Your task to perform on an android device: star an email in the gmail app Image 0: 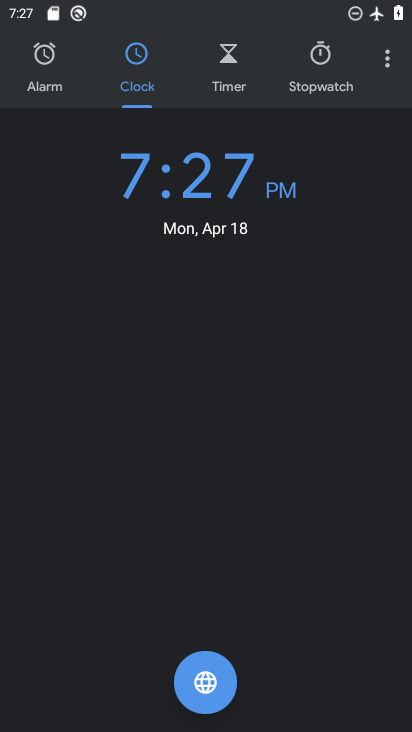
Step 0: press home button
Your task to perform on an android device: star an email in the gmail app Image 1: 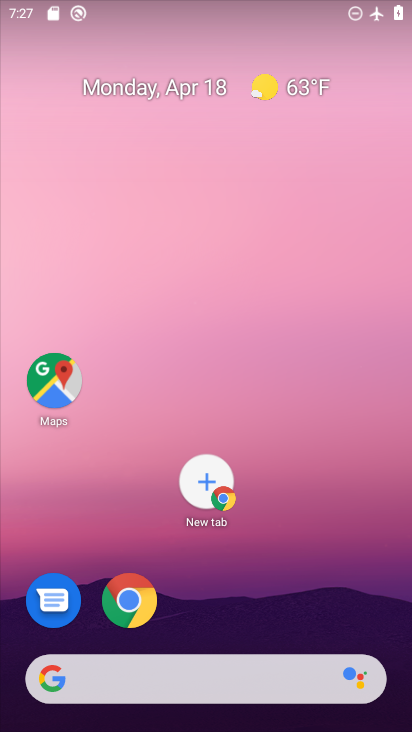
Step 1: drag from (275, 615) to (288, 3)
Your task to perform on an android device: star an email in the gmail app Image 2: 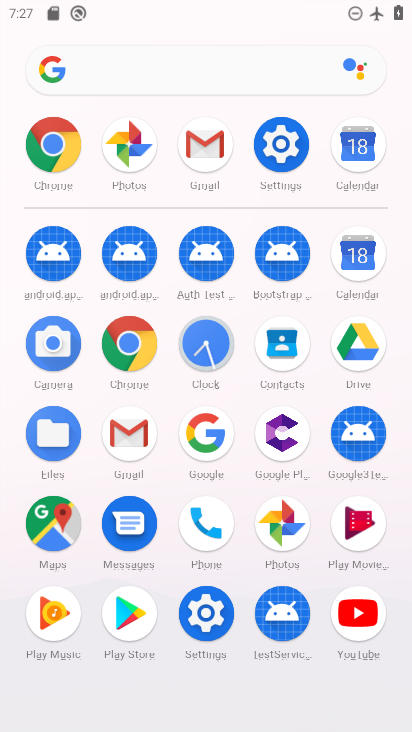
Step 2: click (201, 156)
Your task to perform on an android device: star an email in the gmail app Image 3: 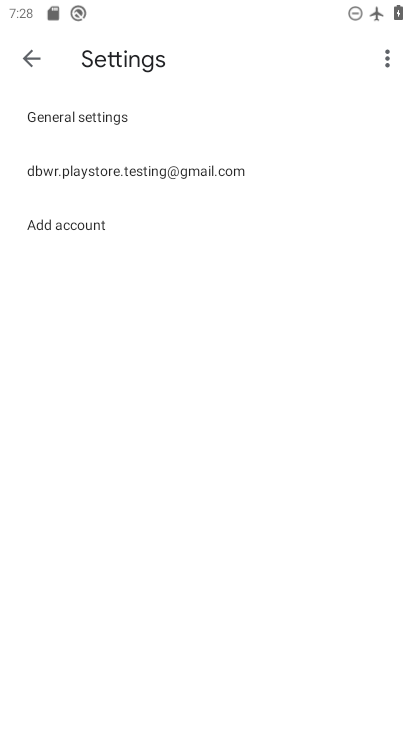
Step 3: click (26, 57)
Your task to perform on an android device: star an email in the gmail app Image 4: 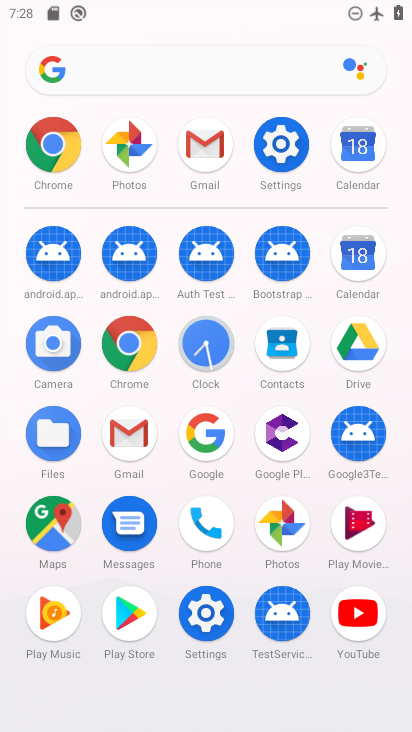
Step 4: click (196, 147)
Your task to perform on an android device: star an email in the gmail app Image 5: 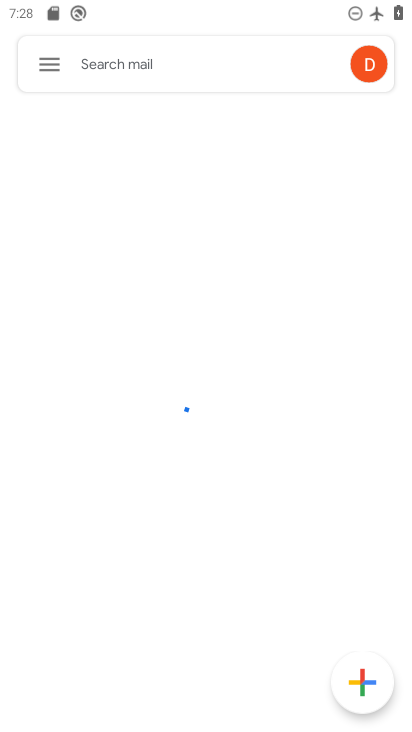
Step 5: click (44, 68)
Your task to perform on an android device: star an email in the gmail app Image 6: 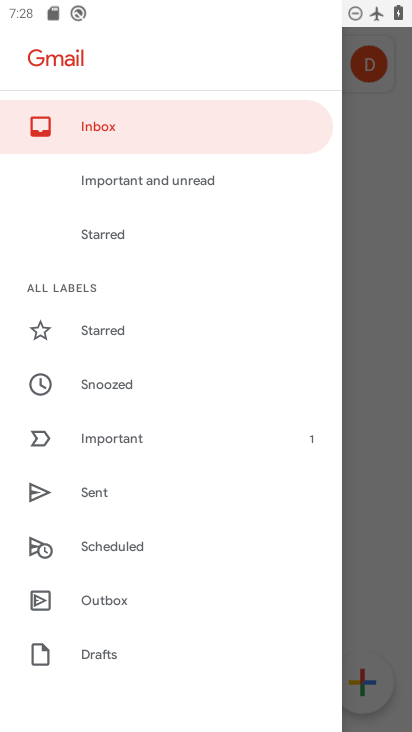
Step 6: drag from (193, 629) to (155, 172)
Your task to perform on an android device: star an email in the gmail app Image 7: 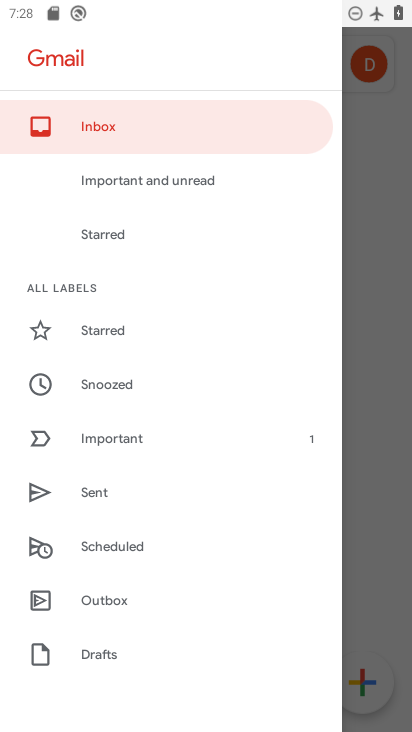
Step 7: drag from (207, 492) to (203, 136)
Your task to perform on an android device: star an email in the gmail app Image 8: 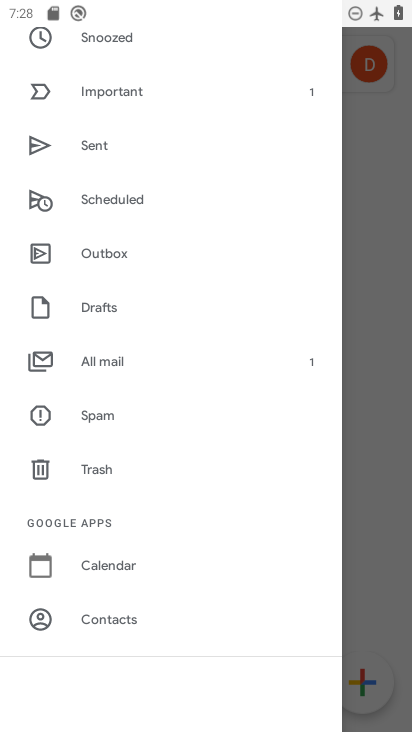
Step 8: click (101, 360)
Your task to perform on an android device: star an email in the gmail app Image 9: 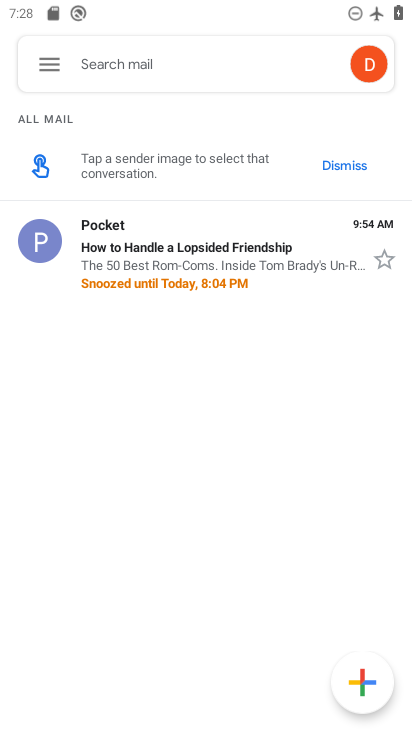
Step 9: click (386, 266)
Your task to perform on an android device: star an email in the gmail app Image 10: 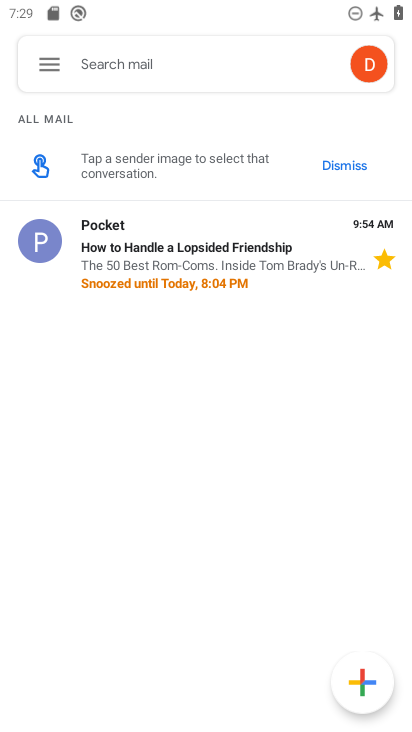
Step 10: task complete